Your task to perform on an android device: Search for sushi restaurants on Maps Image 0: 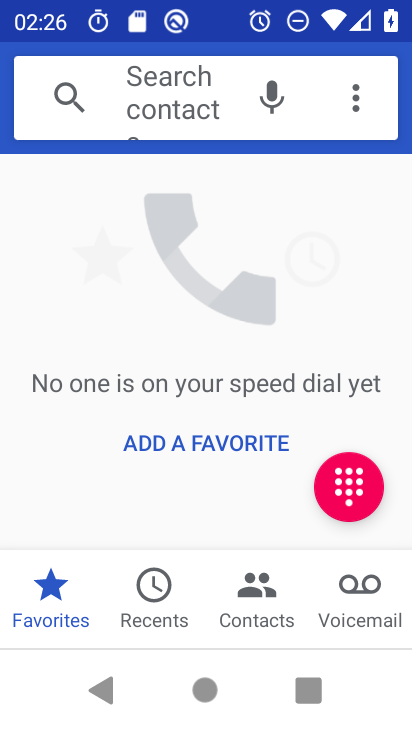
Step 0: press home button
Your task to perform on an android device: Search for sushi restaurants on Maps Image 1: 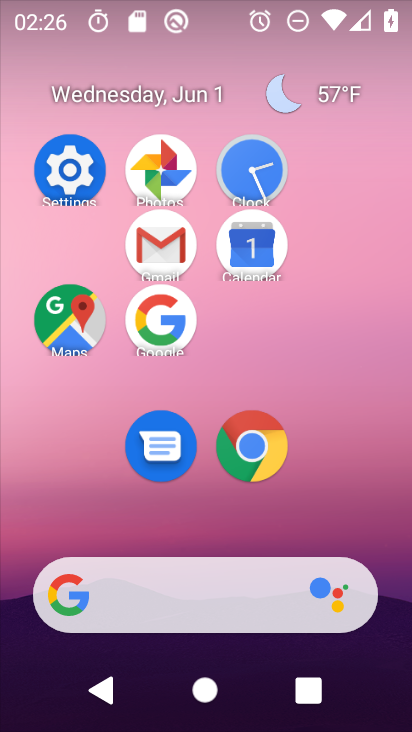
Step 1: click (48, 285)
Your task to perform on an android device: Search for sushi restaurants on Maps Image 2: 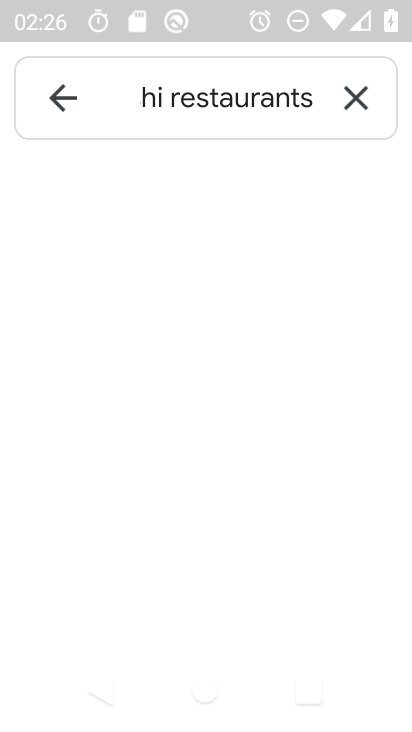
Step 2: click (347, 87)
Your task to perform on an android device: Search for sushi restaurants on Maps Image 3: 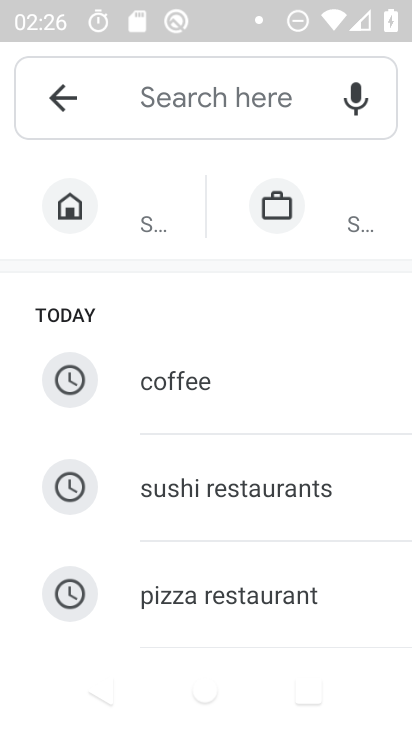
Step 3: click (260, 471)
Your task to perform on an android device: Search for sushi restaurants on Maps Image 4: 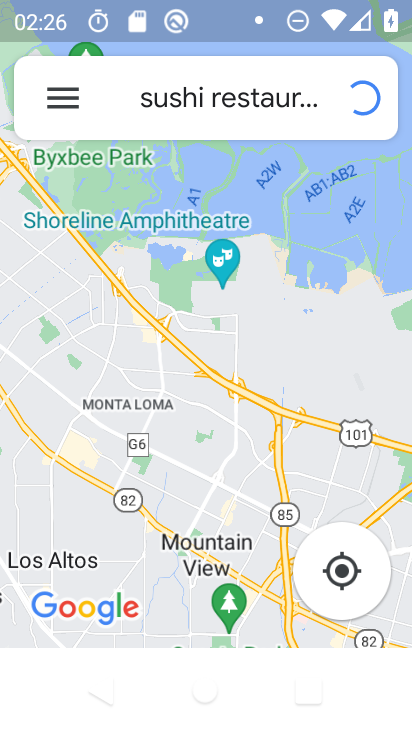
Step 4: task complete